Your task to perform on an android device: Open the Play Movies app and select the watchlist tab. Image 0: 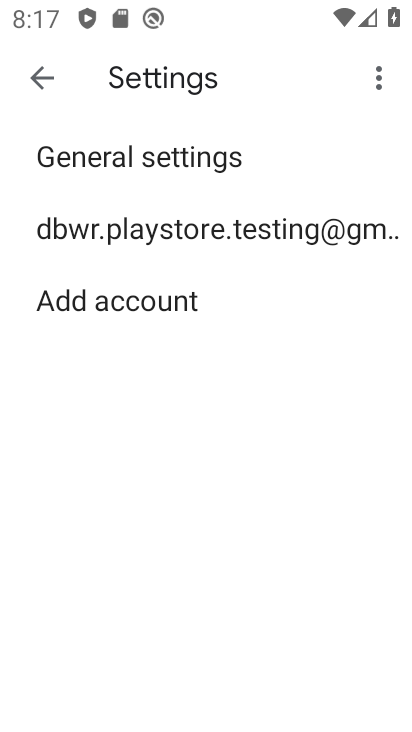
Step 0: click (155, 233)
Your task to perform on an android device: Open the Play Movies app and select the watchlist tab. Image 1: 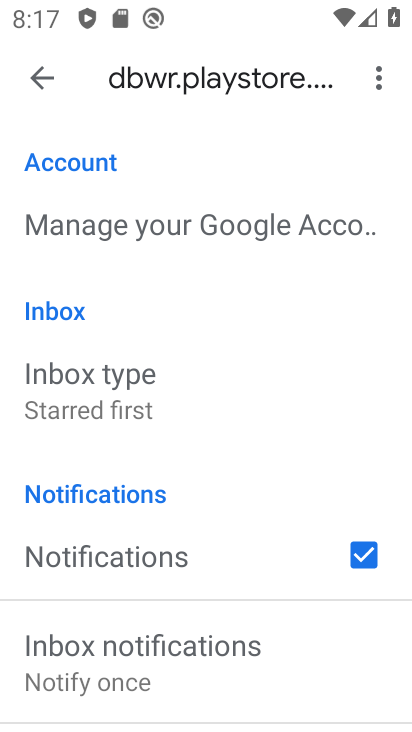
Step 1: press home button
Your task to perform on an android device: Open the Play Movies app and select the watchlist tab. Image 2: 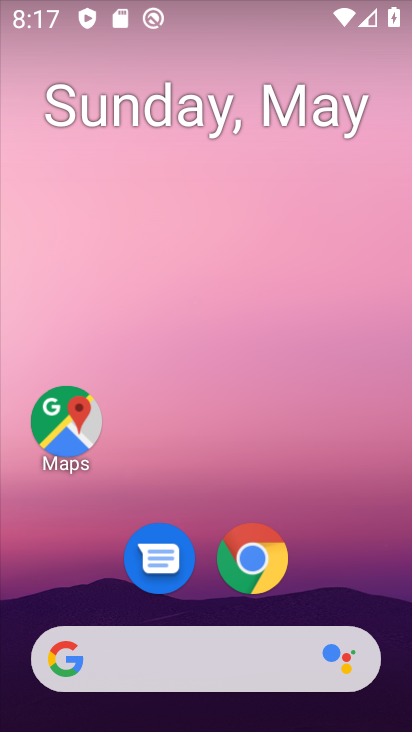
Step 2: drag from (265, 499) to (274, 10)
Your task to perform on an android device: Open the Play Movies app and select the watchlist tab. Image 3: 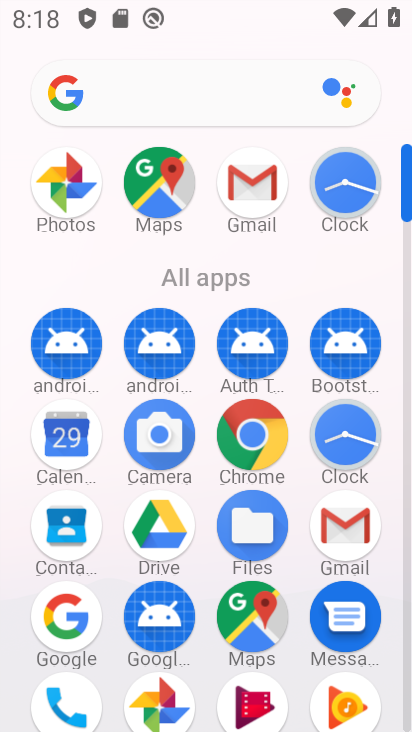
Step 3: drag from (259, 583) to (320, 111)
Your task to perform on an android device: Open the Play Movies app and select the watchlist tab. Image 4: 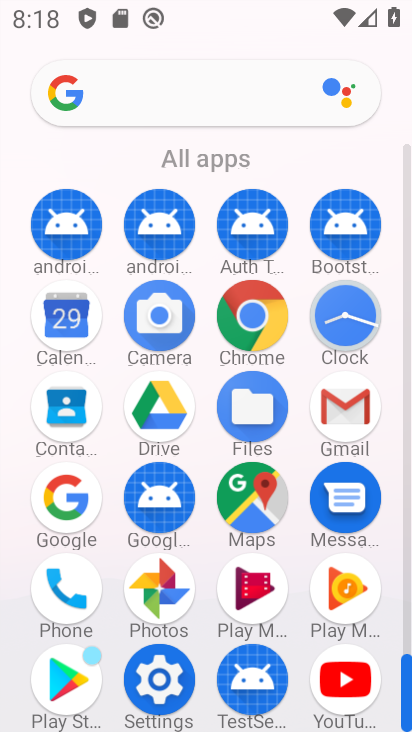
Step 4: click (245, 582)
Your task to perform on an android device: Open the Play Movies app and select the watchlist tab. Image 5: 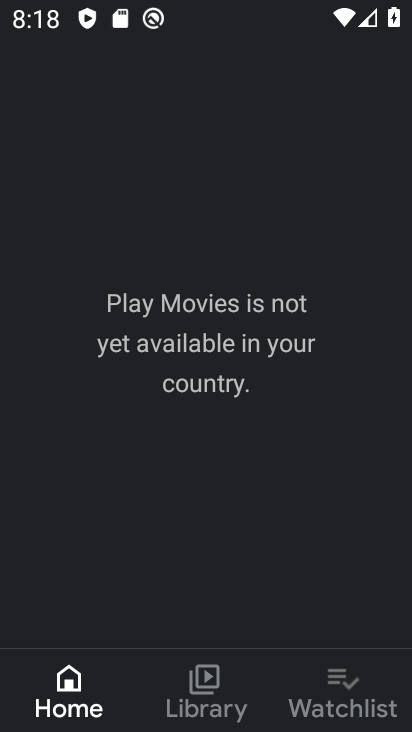
Step 5: click (358, 703)
Your task to perform on an android device: Open the Play Movies app and select the watchlist tab. Image 6: 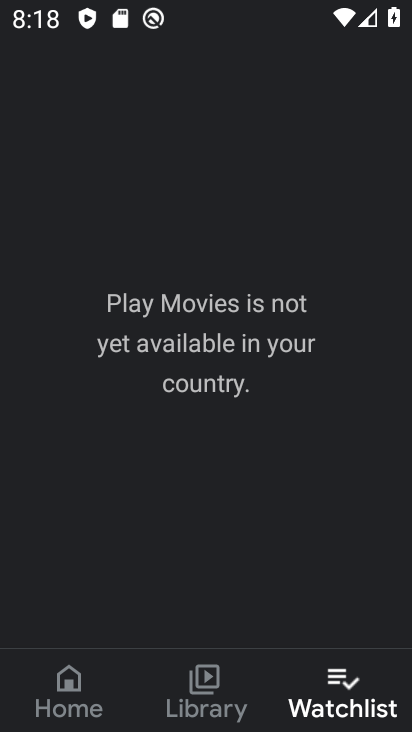
Step 6: task complete